Your task to perform on an android device: uninstall "Flipkart Online Shopping App" Image 0: 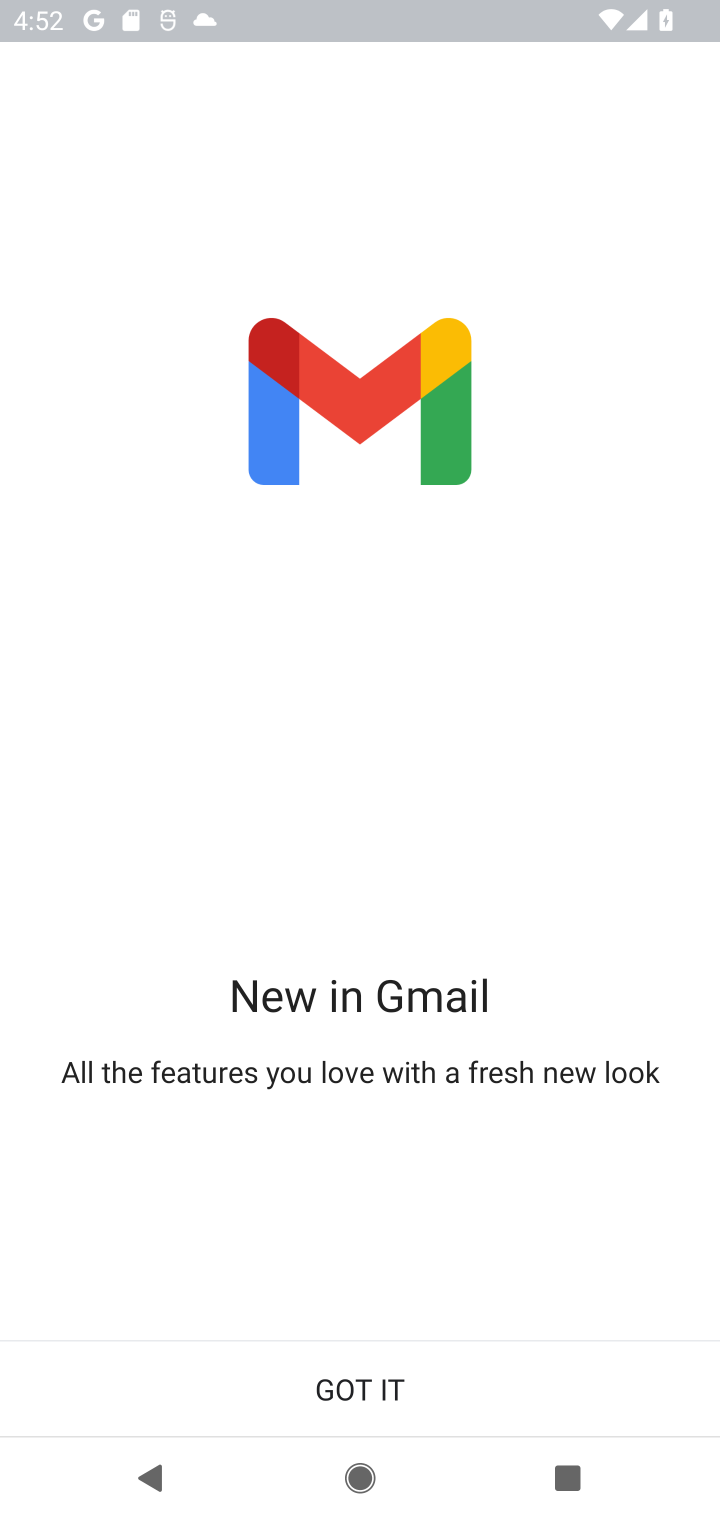
Step 0: press home button
Your task to perform on an android device: uninstall "Flipkart Online Shopping App" Image 1: 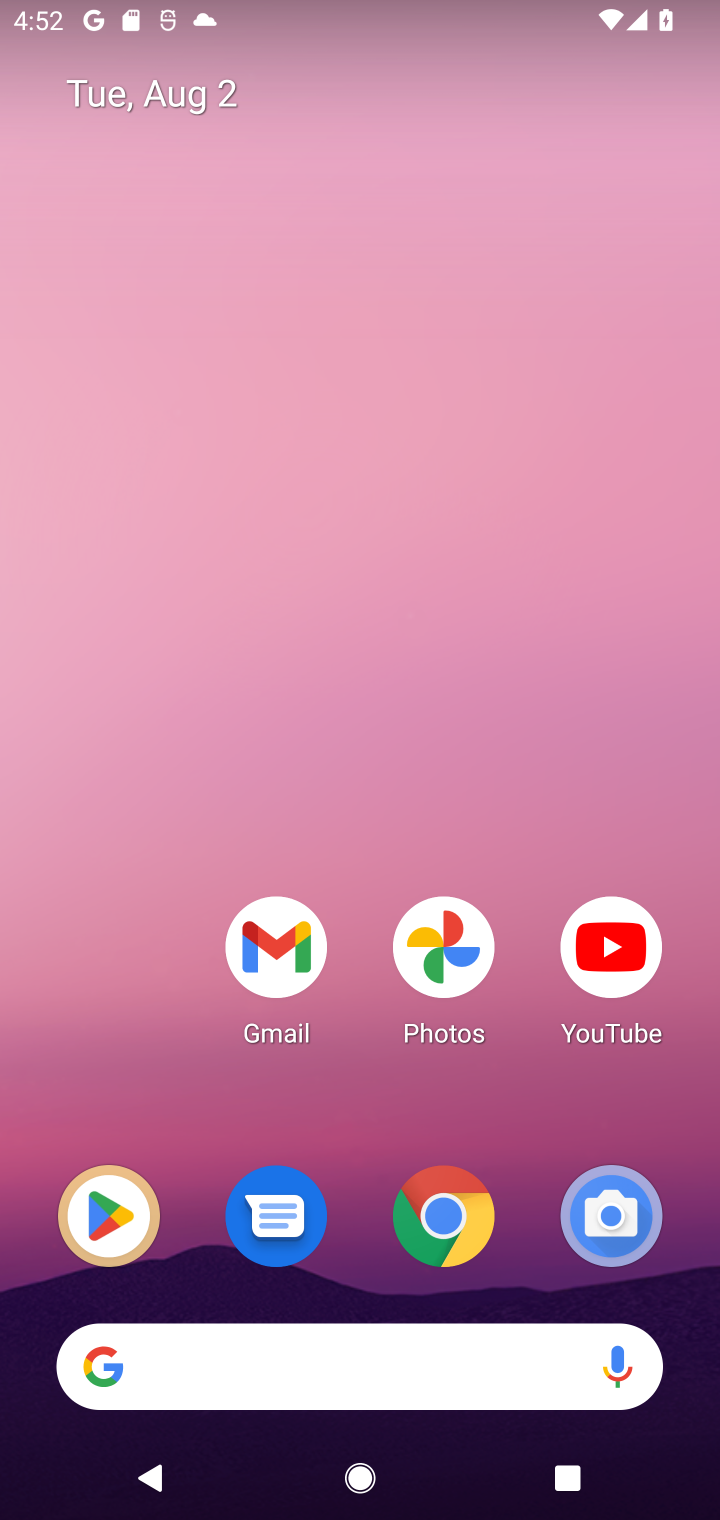
Step 1: drag from (331, 1294) to (402, 256)
Your task to perform on an android device: uninstall "Flipkart Online Shopping App" Image 2: 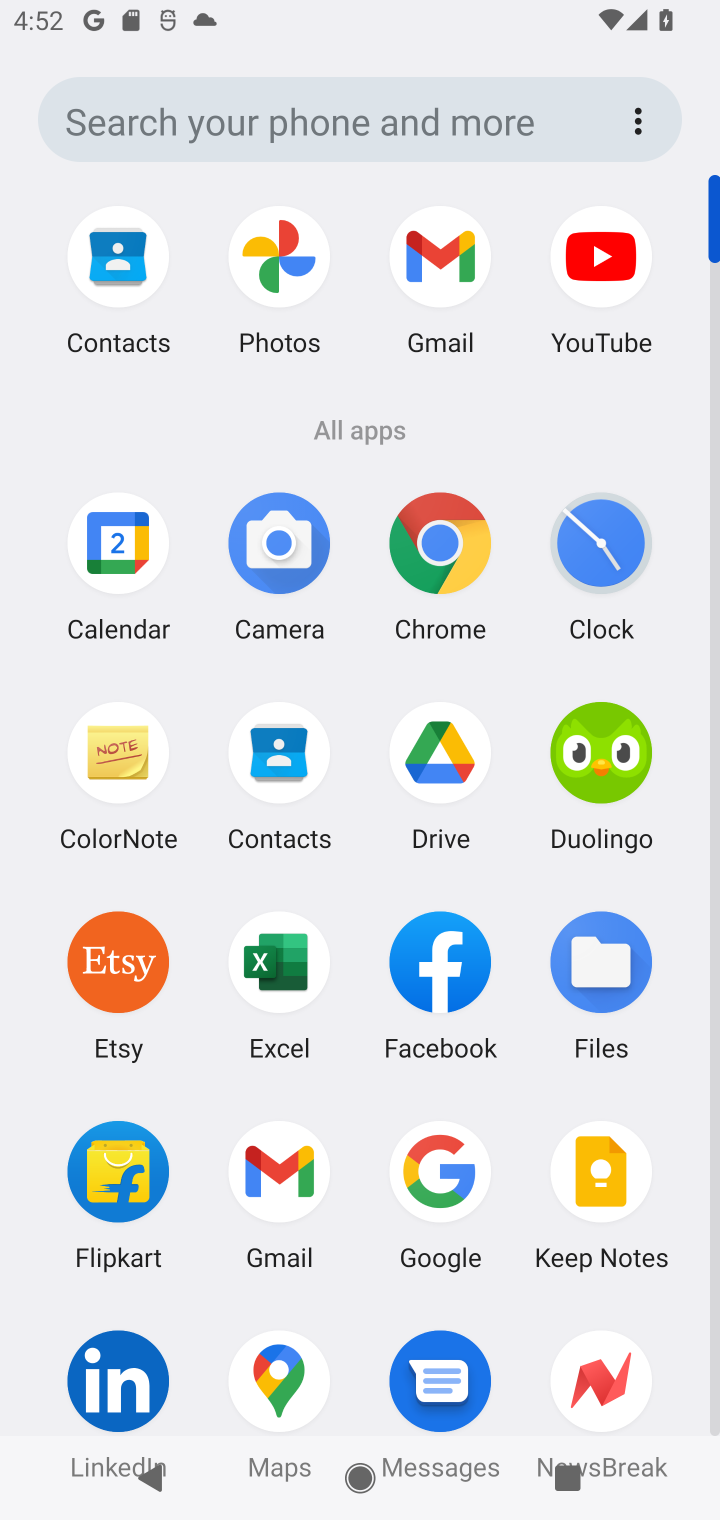
Step 2: click (439, 1209)
Your task to perform on an android device: uninstall "Flipkart Online Shopping App" Image 3: 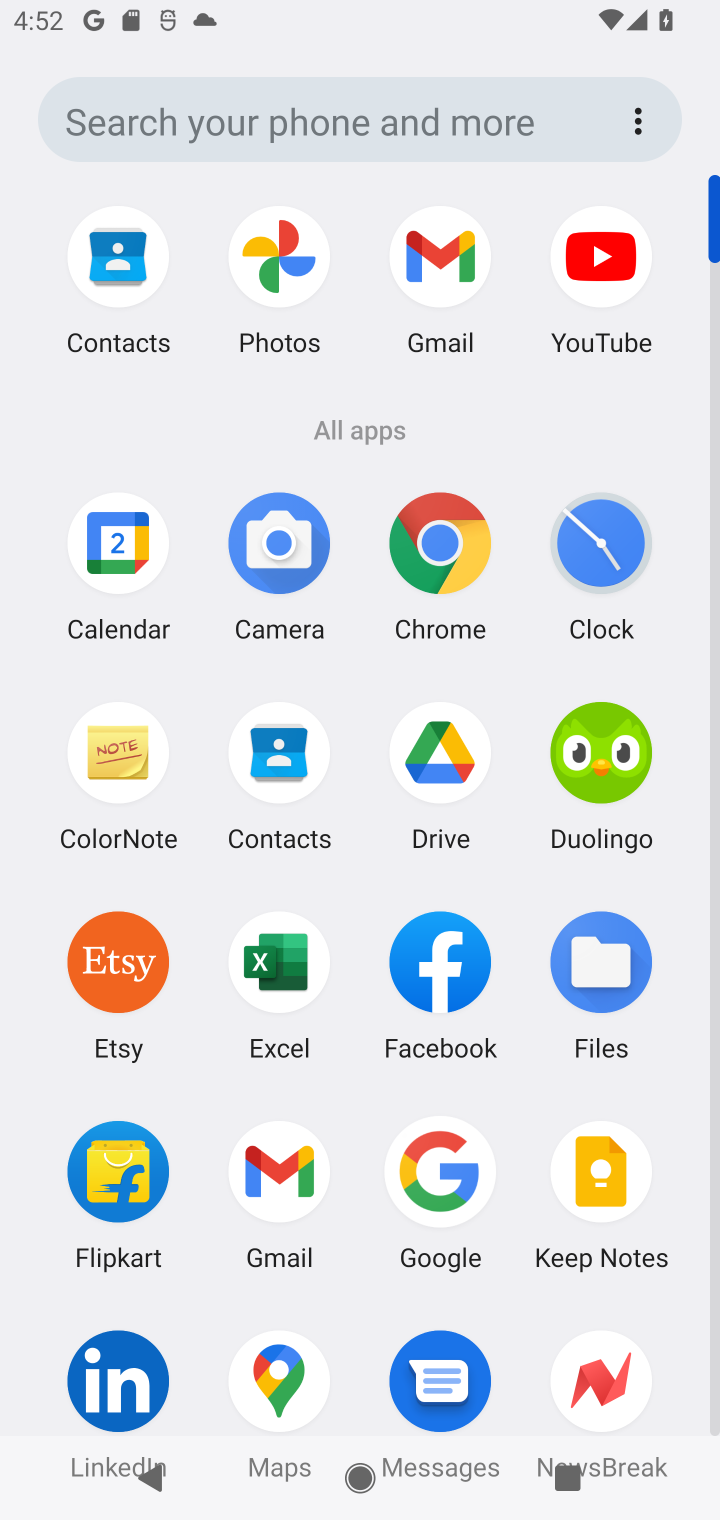
Step 3: task complete